Your task to perform on an android device: Open notification settings Image 0: 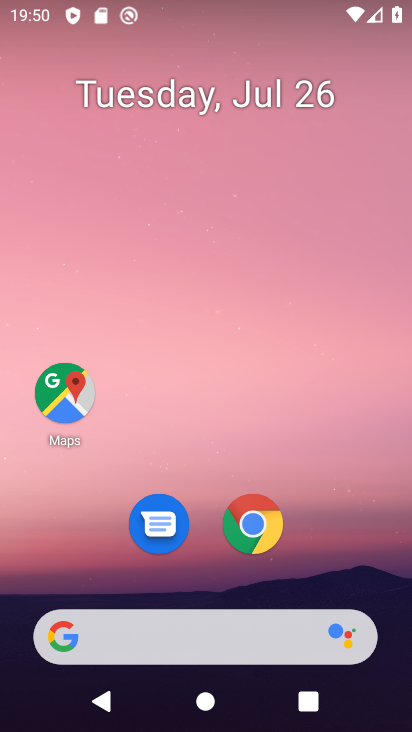
Step 0: drag from (168, 632) to (253, 160)
Your task to perform on an android device: Open notification settings Image 1: 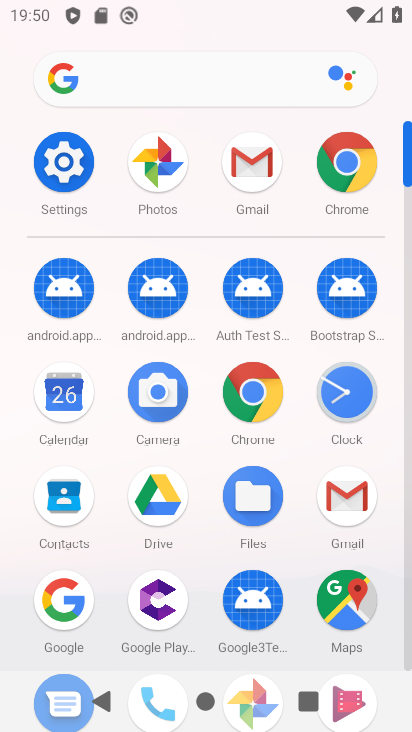
Step 1: click (62, 170)
Your task to perform on an android device: Open notification settings Image 2: 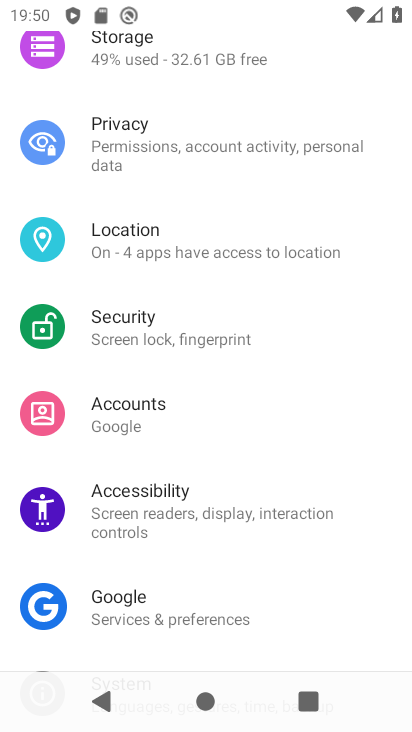
Step 2: drag from (282, 106) to (244, 529)
Your task to perform on an android device: Open notification settings Image 3: 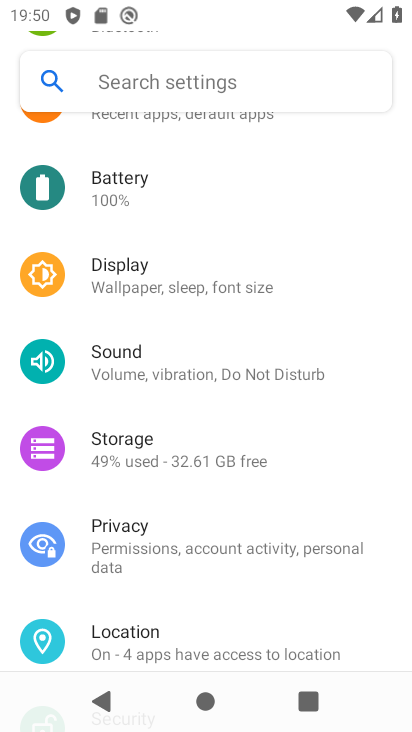
Step 3: drag from (285, 227) to (267, 647)
Your task to perform on an android device: Open notification settings Image 4: 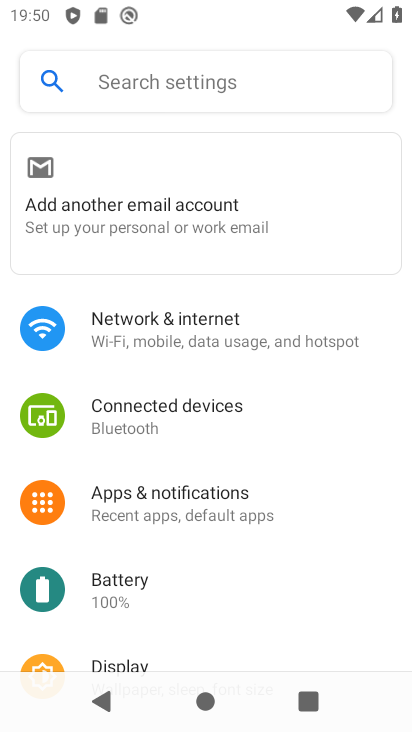
Step 4: click (231, 499)
Your task to perform on an android device: Open notification settings Image 5: 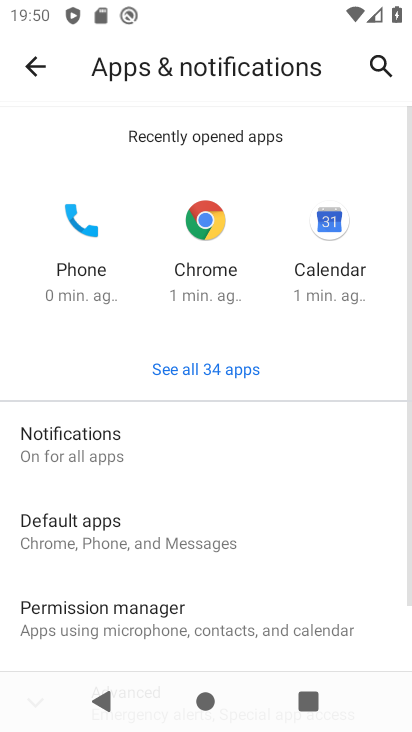
Step 5: click (131, 447)
Your task to perform on an android device: Open notification settings Image 6: 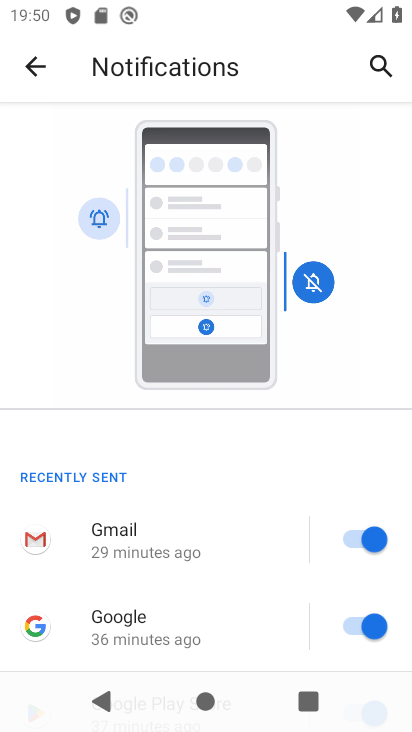
Step 6: task complete